Your task to perform on an android device: Check the weather Image 0: 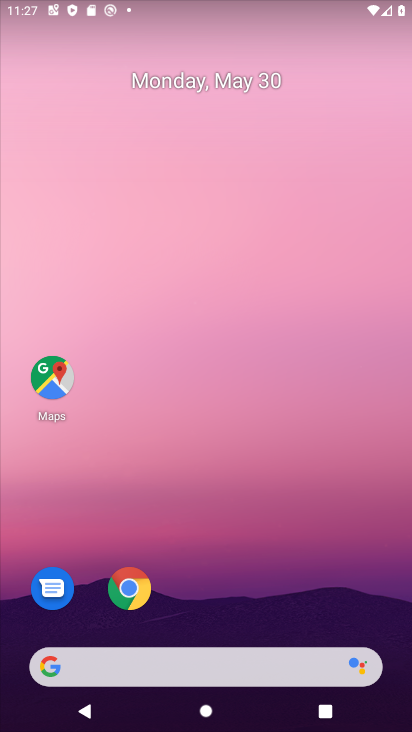
Step 0: drag from (398, 483) to (336, 293)
Your task to perform on an android device: Check the weather Image 1: 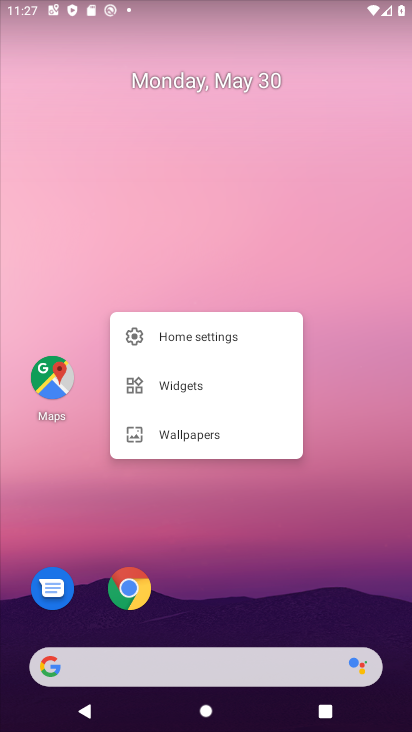
Step 1: drag from (167, 266) to (403, 259)
Your task to perform on an android device: Check the weather Image 2: 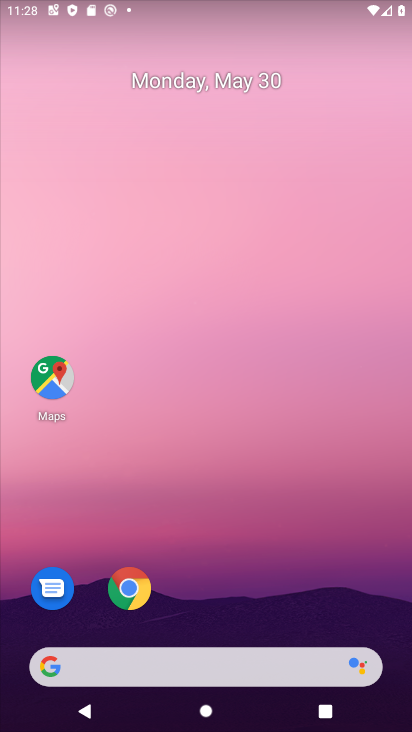
Step 2: drag from (2, 283) to (399, 313)
Your task to perform on an android device: Check the weather Image 3: 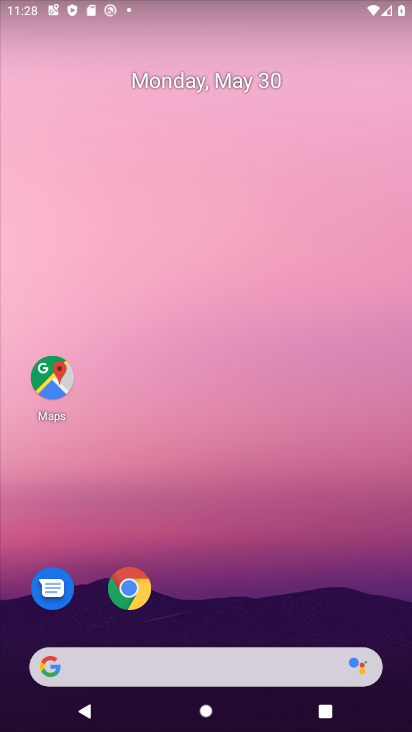
Step 3: drag from (0, 282) to (405, 270)
Your task to perform on an android device: Check the weather Image 4: 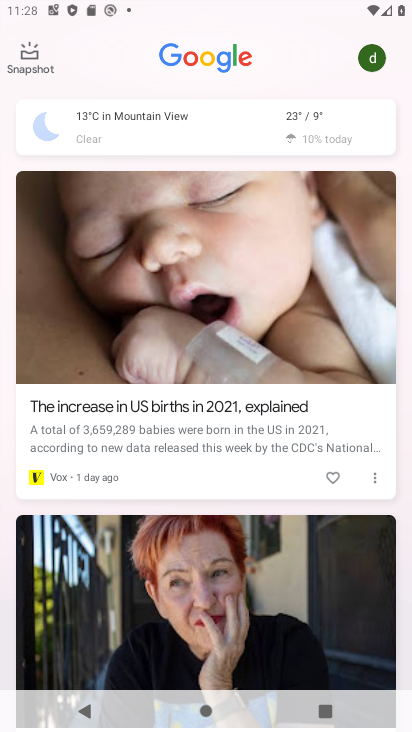
Step 4: click (294, 112)
Your task to perform on an android device: Check the weather Image 5: 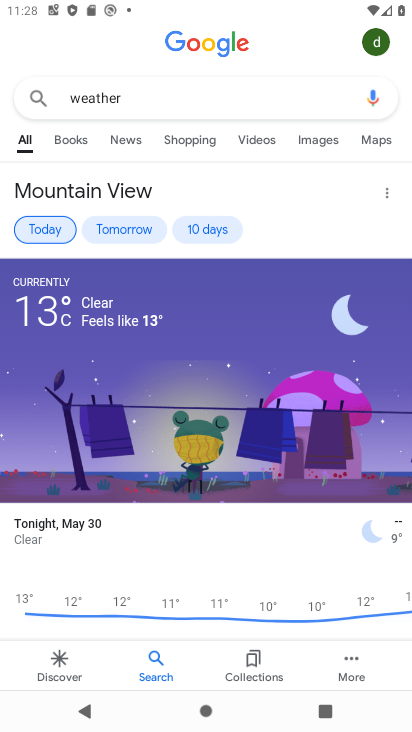
Step 5: task complete